Your task to perform on an android device: turn off sleep mode Image 0: 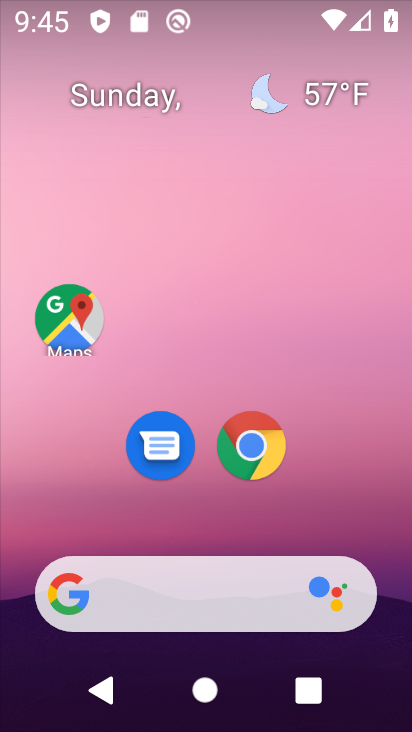
Step 0: click (396, 506)
Your task to perform on an android device: turn off sleep mode Image 1: 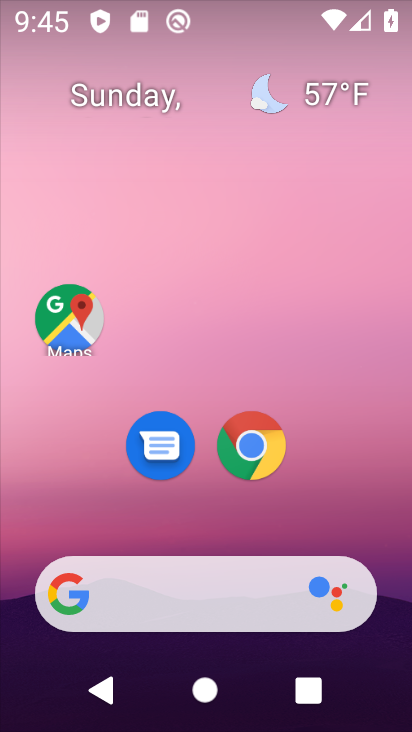
Step 1: drag from (179, 556) to (216, 127)
Your task to perform on an android device: turn off sleep mode Image 2: 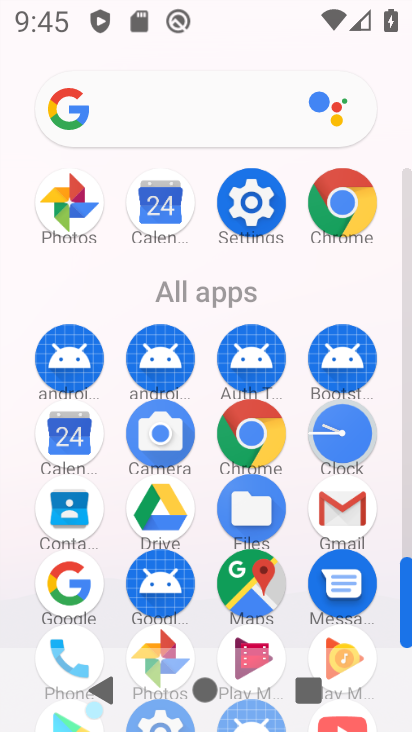
Step 2: click (237, 222)
Your task to perform on an android device: turn off sleep mode Image 3: 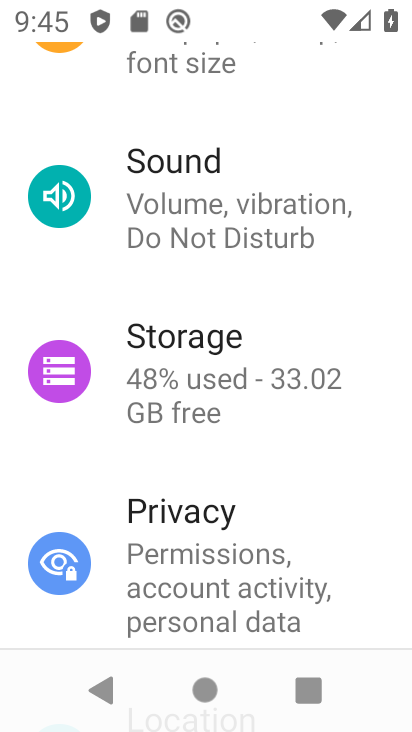
Step 3: drag from (214, 227) to (121, 546)
Your task to perform on an android device: turn off sleep mode Image 4: 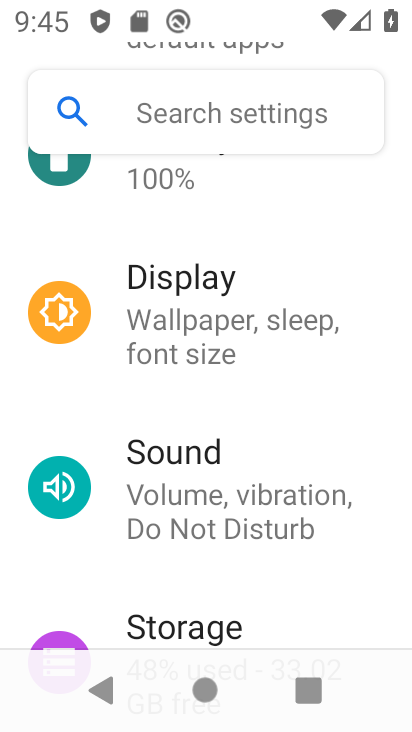
Step 4: click (195, 345)
Your task to perform on an android device: turn off sleep mode Image 5: 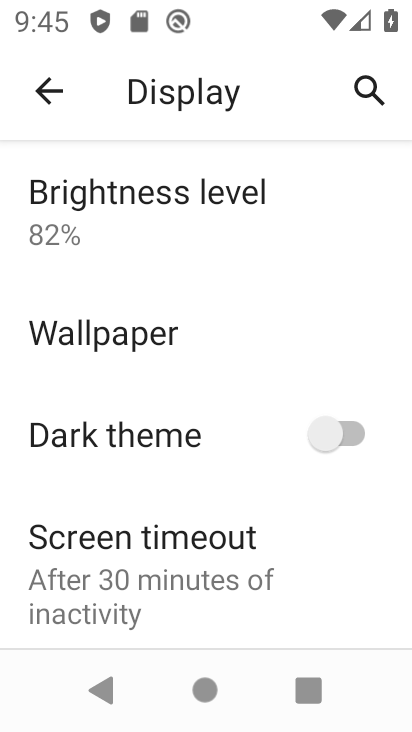
Step 5: task complete